Your task to perform on an android device: turn on the 24-hour format for clock Image 0: 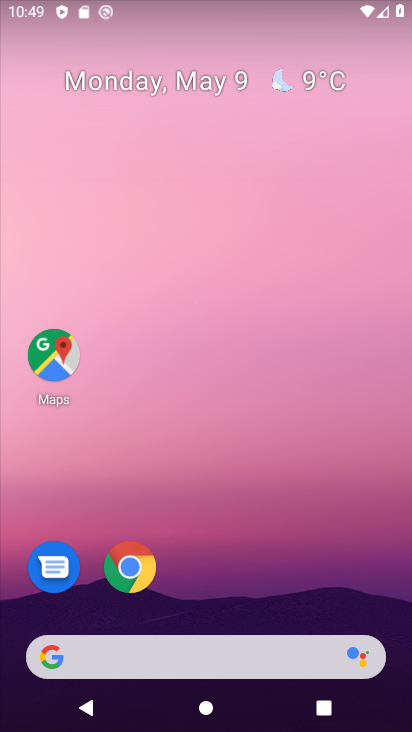
Step 0: drag from (234, 591) to (145, 166)
Your task to perform on an android device: turn on the 24-hour format for clock Image 1: 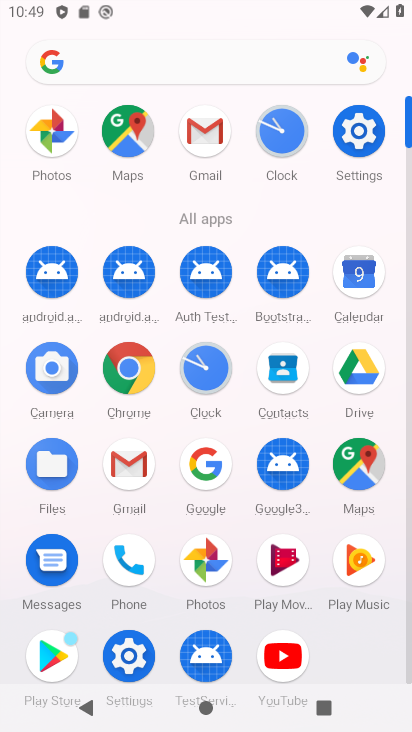
Step 1: click (280, 130)
Your task to perform on an android device: turn on the 24-hour format for clock Image 2: 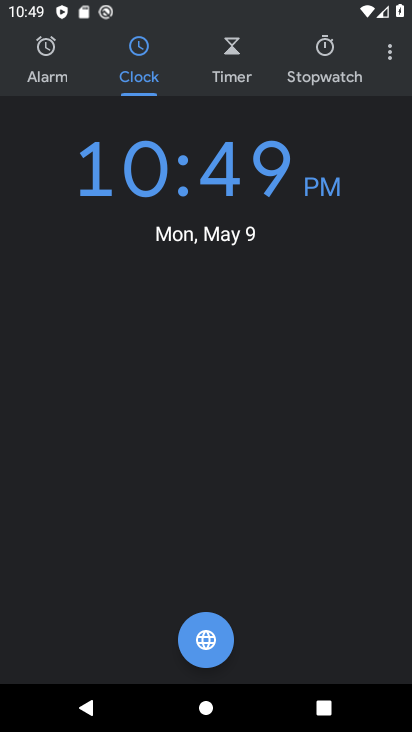
Step 2: click (390, 51)
Your task to perform on an android device: turn on the 24-hour format for clock Image 3: 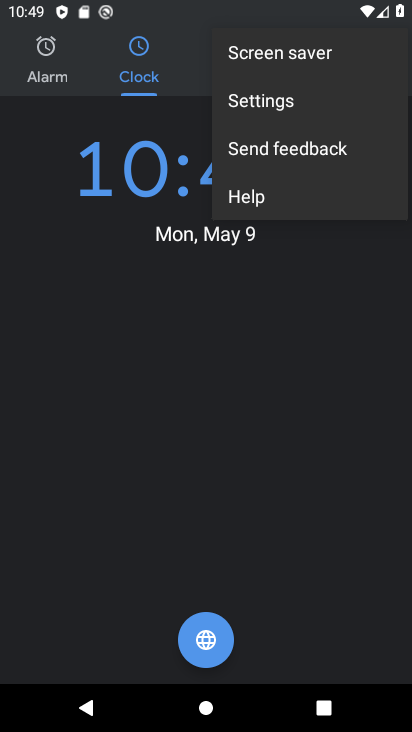
Step 3: click (281, 96)
Your task to perform on an android device: turn on the 24-hour format for clock Image 4: 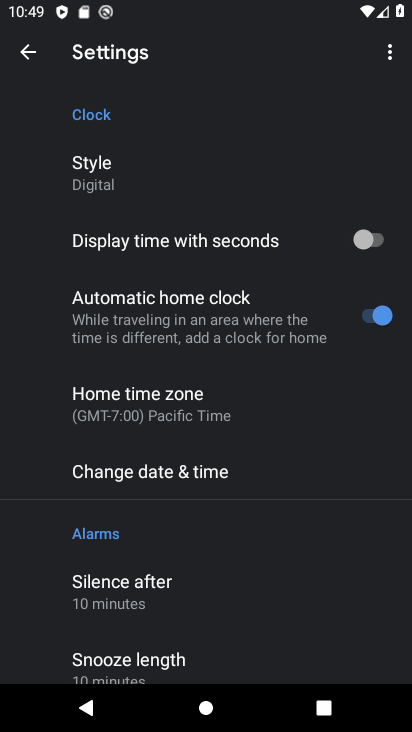
Step 4: click (173, 468)
Your task to perform on an android device: turn on the 24-hour format for clock Image 5: 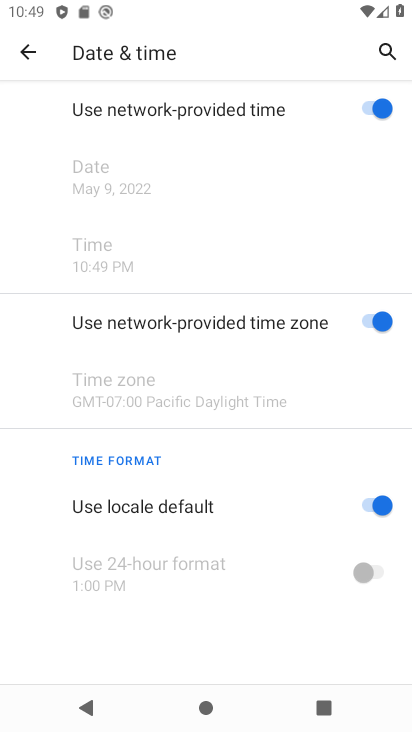
Step 5: click (366, 506)
Your task to perform on an android device: turn on the 24-hour format for clock Image 6: 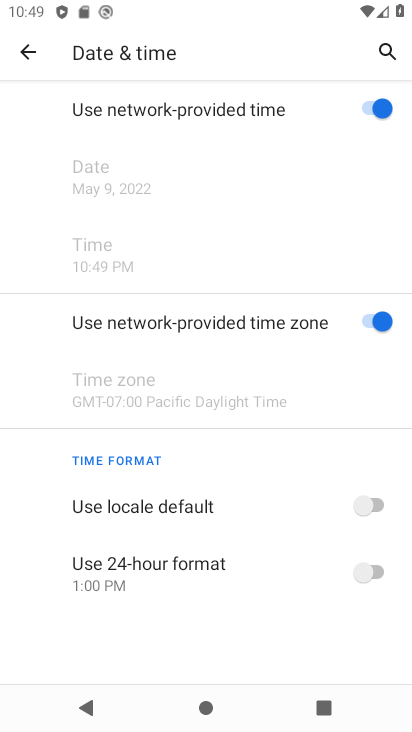
Step 6: click (376, 570)
Your task to perform on an android device: turn on the 24-hour format for clock Image 7: 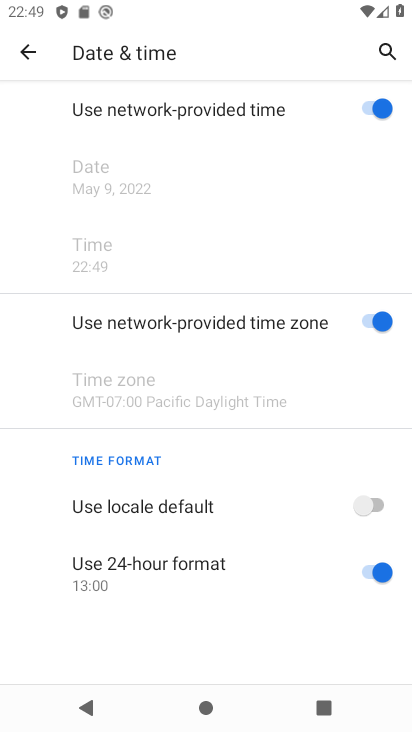
Step 7: task complete